Your task to perform on an android device: star an email in the gmail app Image 0: 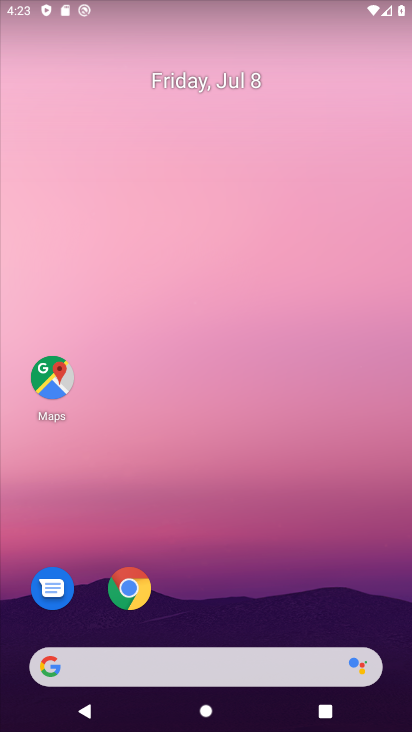
Step 0: drag from (228, 429) to (227, 102)
Your task to perform on an android device: star an email in the gmail app Image 1: 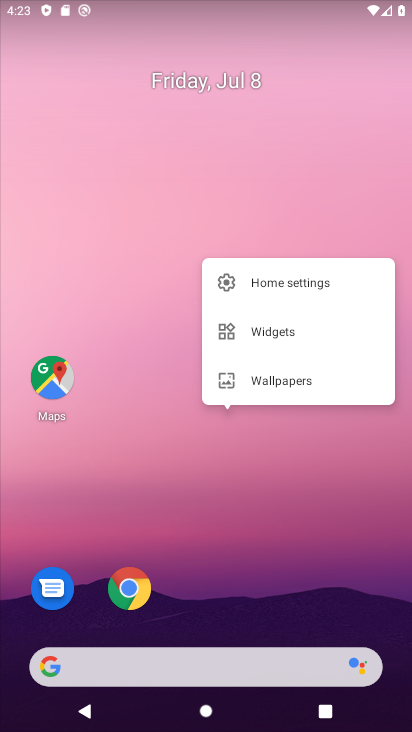
Step 1: drag from (272, 633) to (183, 38)
Your task to perform on an android device: star an email in the gmail app Image 2: 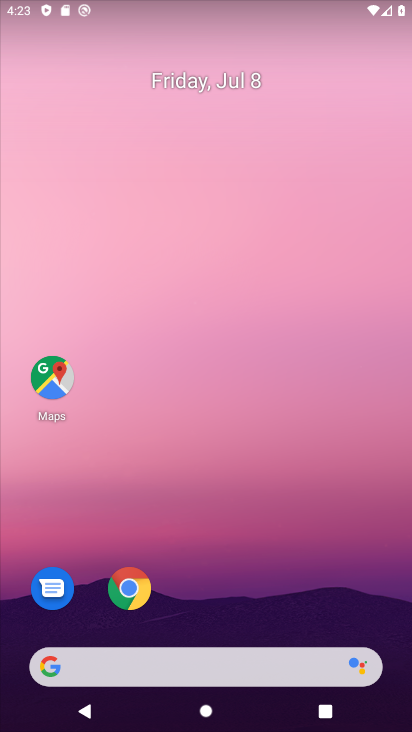
Step 2: drag from (335, 517) to (224, 75)
Your task to perform on an android device: star an email in the gmail app Image 3: 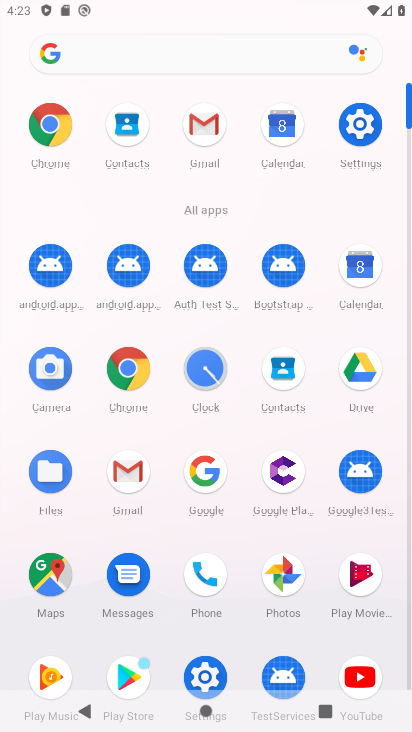
Step 3: drag from (219, 494) to (184, 54)
Your task to perform on an android device: star an email in the gmail app Image 4: 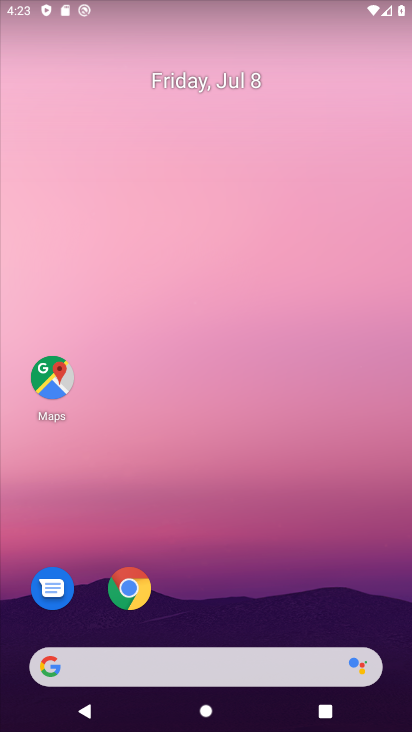
Step 4: drag from (311, 719) to (208, 143)
Your task to perform on an android device: star an email in the gmail app Image 5: 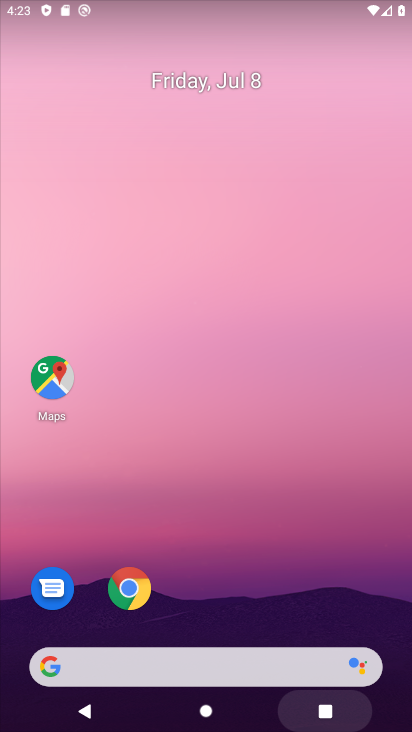
Step 5: drag from (241, 600) to (188, 121)
Your task to perform on an android device: star an email in the gmail app Image 6: 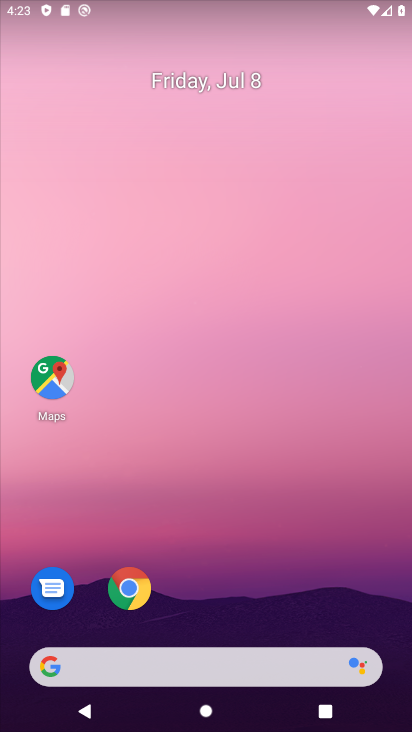
Step 6: drag from (294, 584) to (176, 150)
Your task to perform on an android device: star an email in the gmail app Image 7: 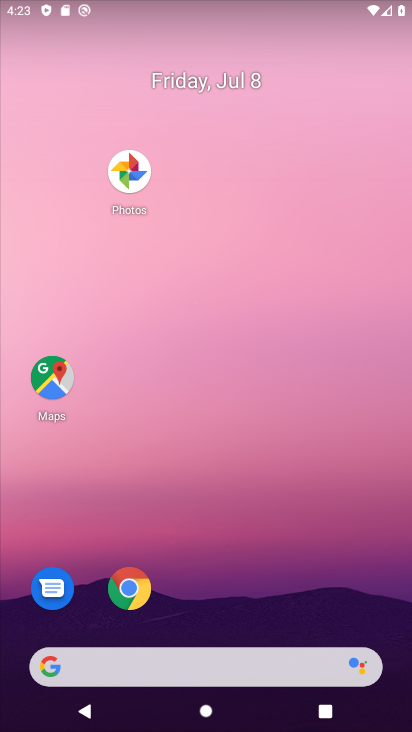
Step 7: drag from (321, 588) to (192, 57)
Your task to perform on an android device: star an email in the gmail app Image 8: 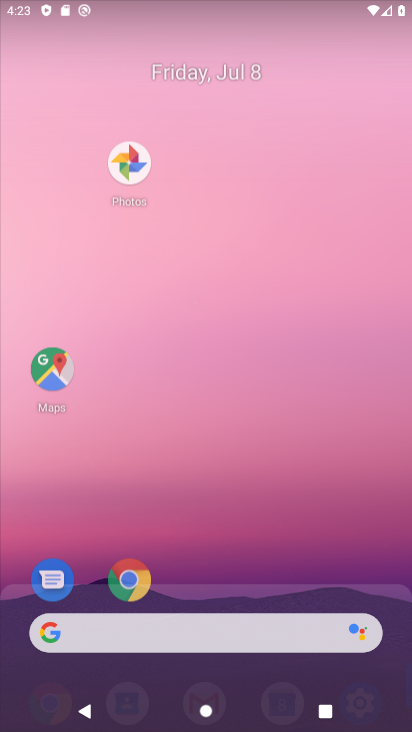
Step 8: drag from (312, 470) to (133, 4)
Your task to perform on an android device: star an email in the gmail app Image 9: 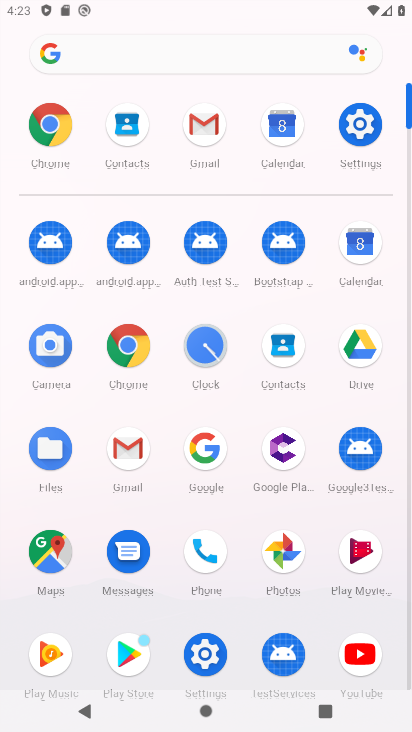
Step 9: click (198, 142)
Your task to perform on an android device: star an email in the gmail app Image 10: 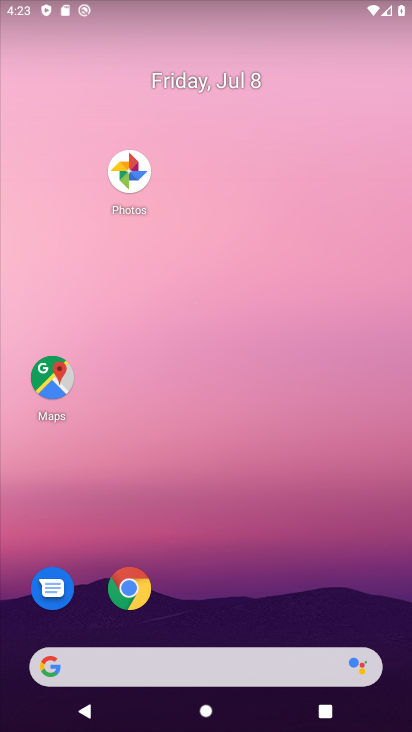
Step 10: click (198, 142)
Your task to perform on an android device: star an email in the gmail app Image 11: 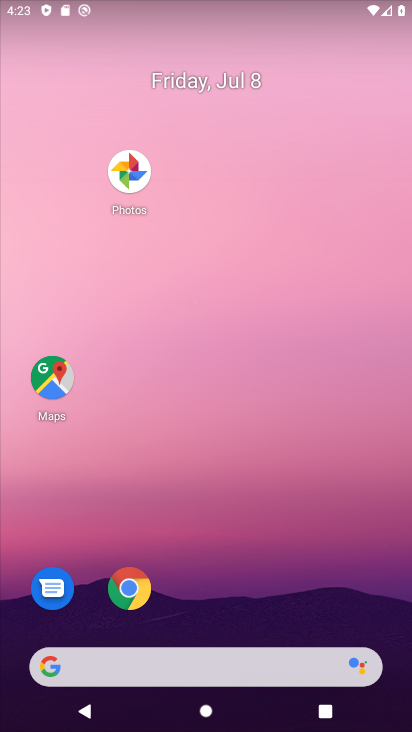
Step 11: drag from (301, 536) to (146, 4)
Your task to perform on an android device: star an email in the gmail app Image 12: 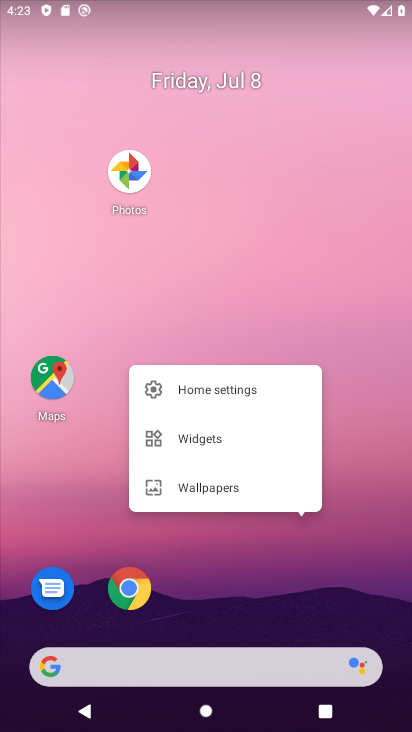
Step 12: click (175, 34)
Your task to perform on an android device: star an email in the gmail app Image 13: 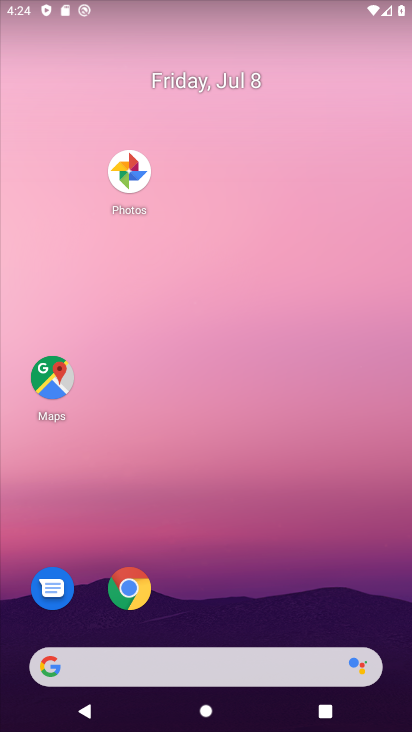
Step 13: drag from (243, 632) to (205, 248)
Your task to perform on an android device: star an email in the gmail app Image 14: 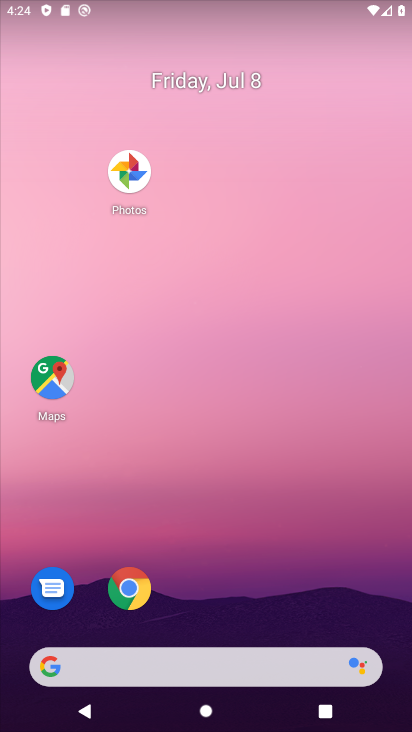
Step 14: drag from (329, 728) to (141, 197)
Your task to perform on an android device: star an email in the gmail app Image 15: 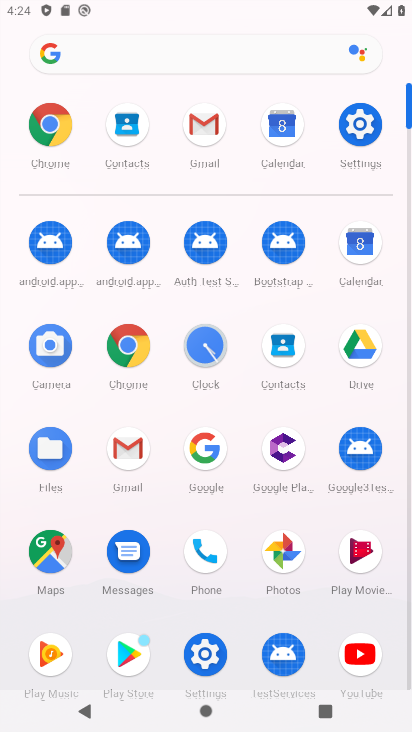
Step 15: click (141, 438)
Your task to perform on an android device: star an email in the gmail app Image 16: 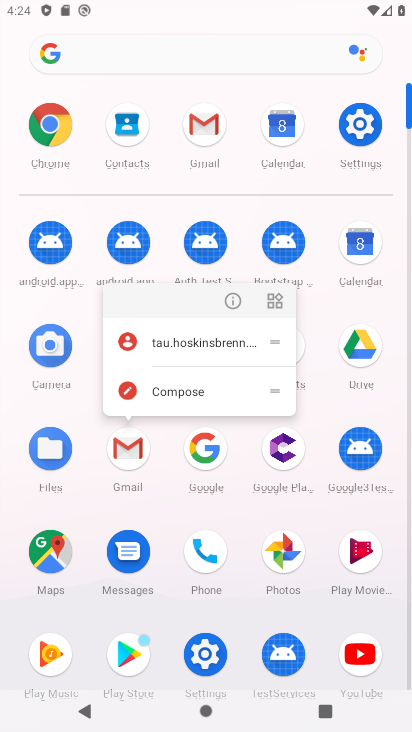
Step 16: click (140, 446)
Your task to perform on an android device: star an email in the gmail app Image 17: 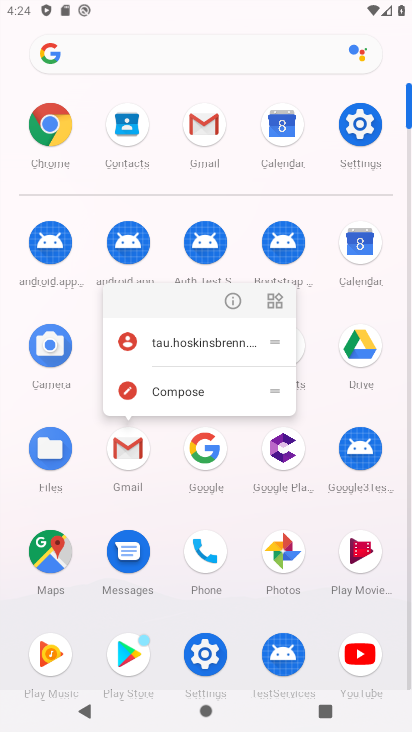
Step 17: click (139, 444)
Your task to perform on an android device: star an email in the gmail app Image 18: 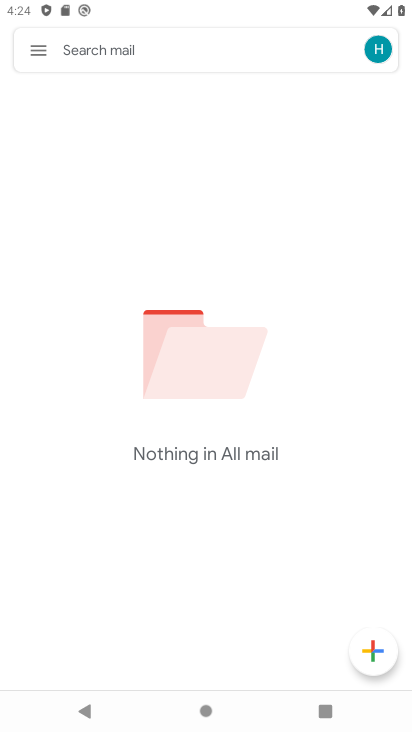
Step 18: click (47, 44)
Your task to perform on an android device: star an email in the gmail app Image 19: 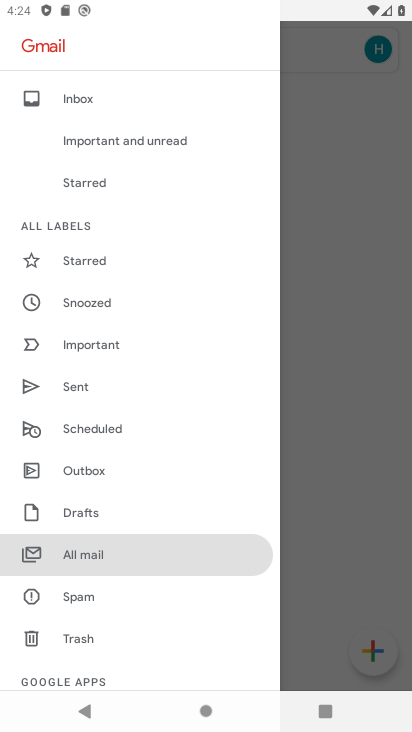
Step 19: click (111, 560)
Your task to perform on an android device: star an email in the gmail app Image 20: 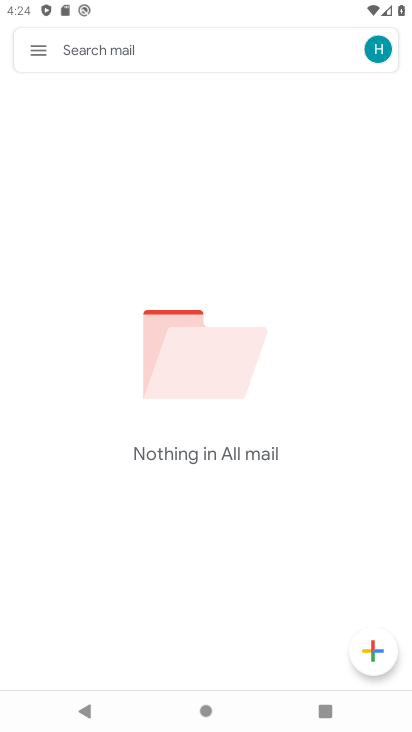
Step 20: task complete